Your task to perform on an android device: Open accessibility settings Image 0: 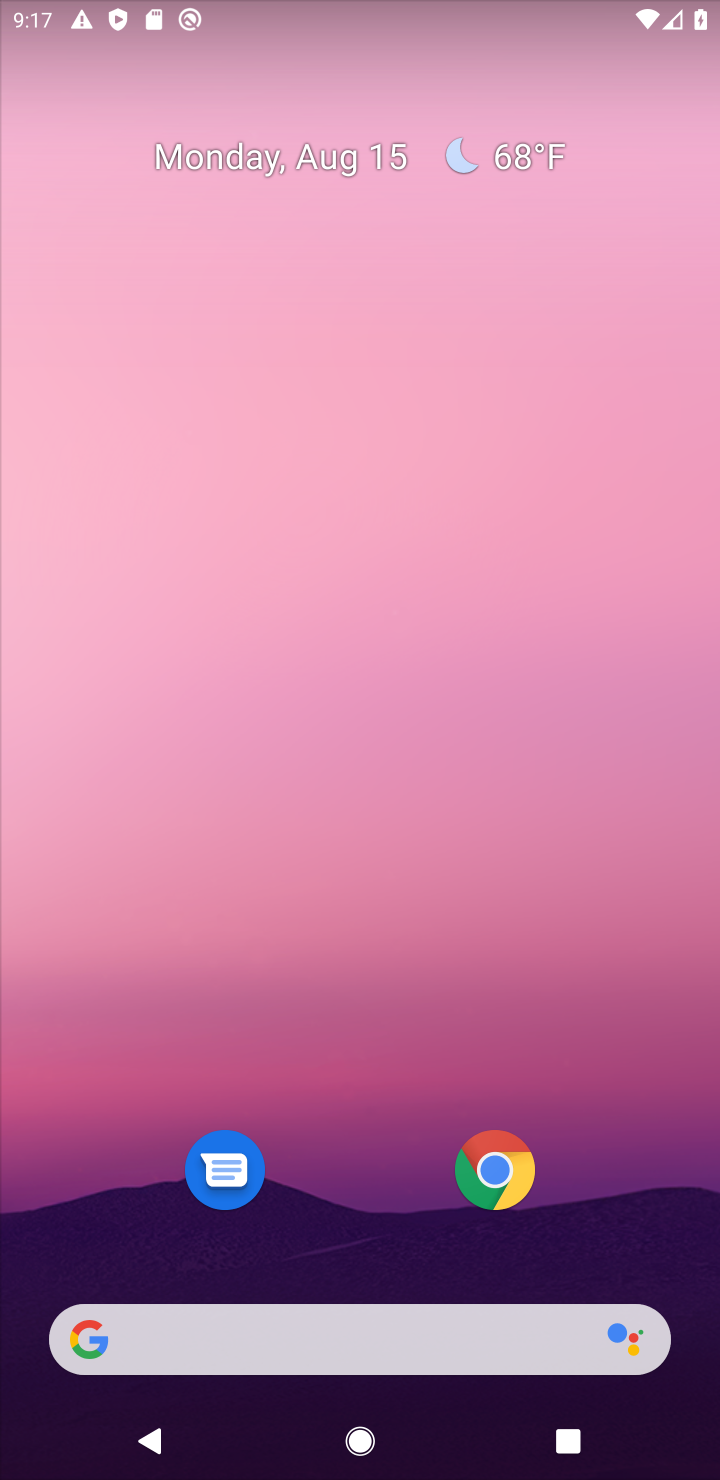
Step 0: drag from (204, 1263) to (217, 88)
Your task to perform on an android device: Open accessibility settings Image 1: 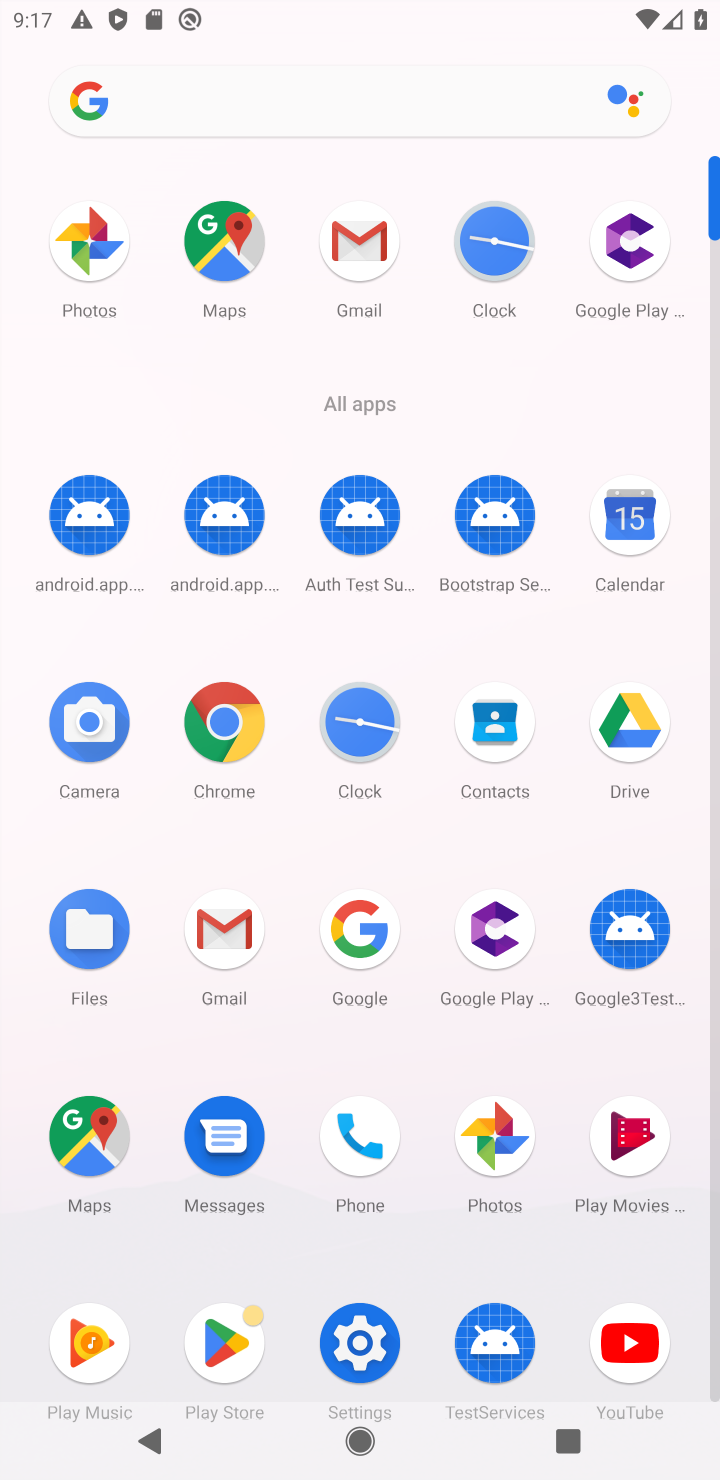
Step 1: click (372, 1352)
Your task to perform on an android device: Open accessibility settings Image 2: 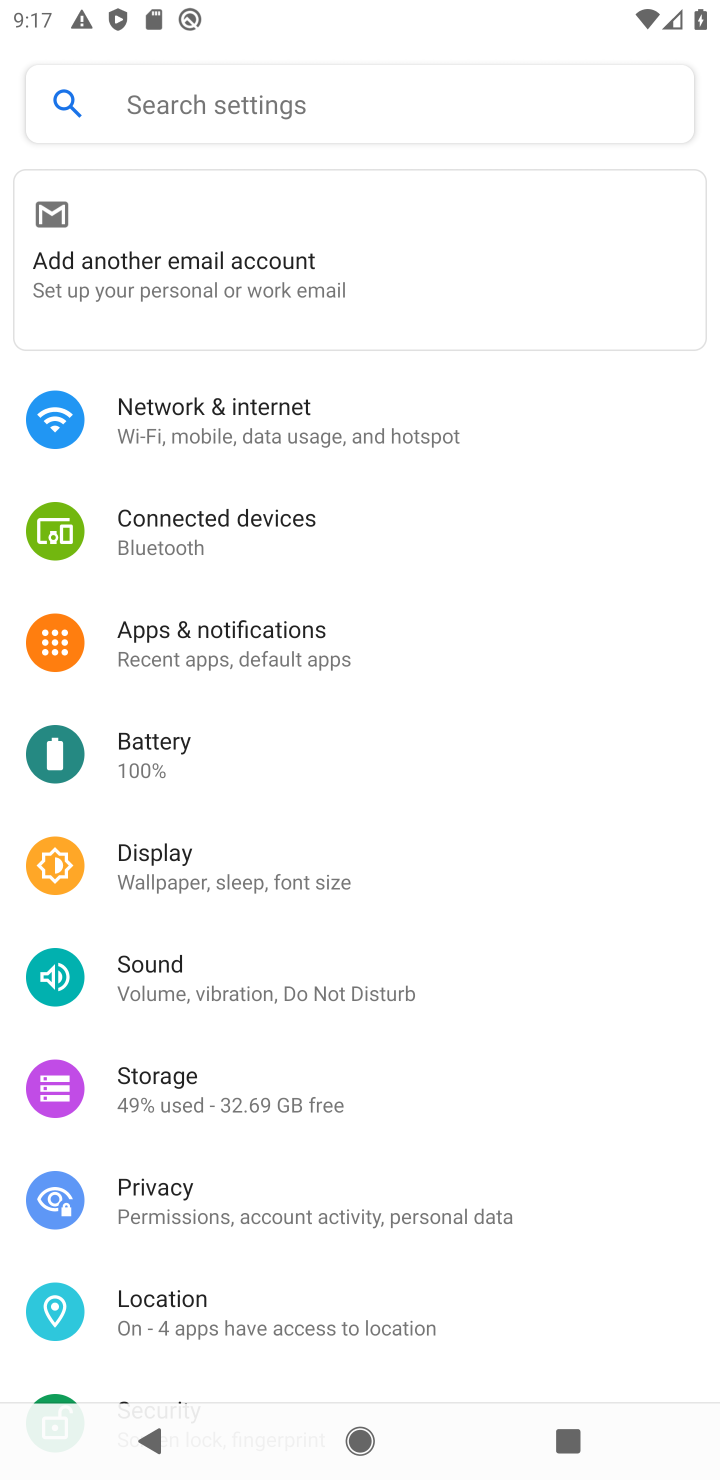
Step 2: drag from (105, 1006) to (2, 376)
Your task to perform on an android device: Open accessibility settings Image 3: 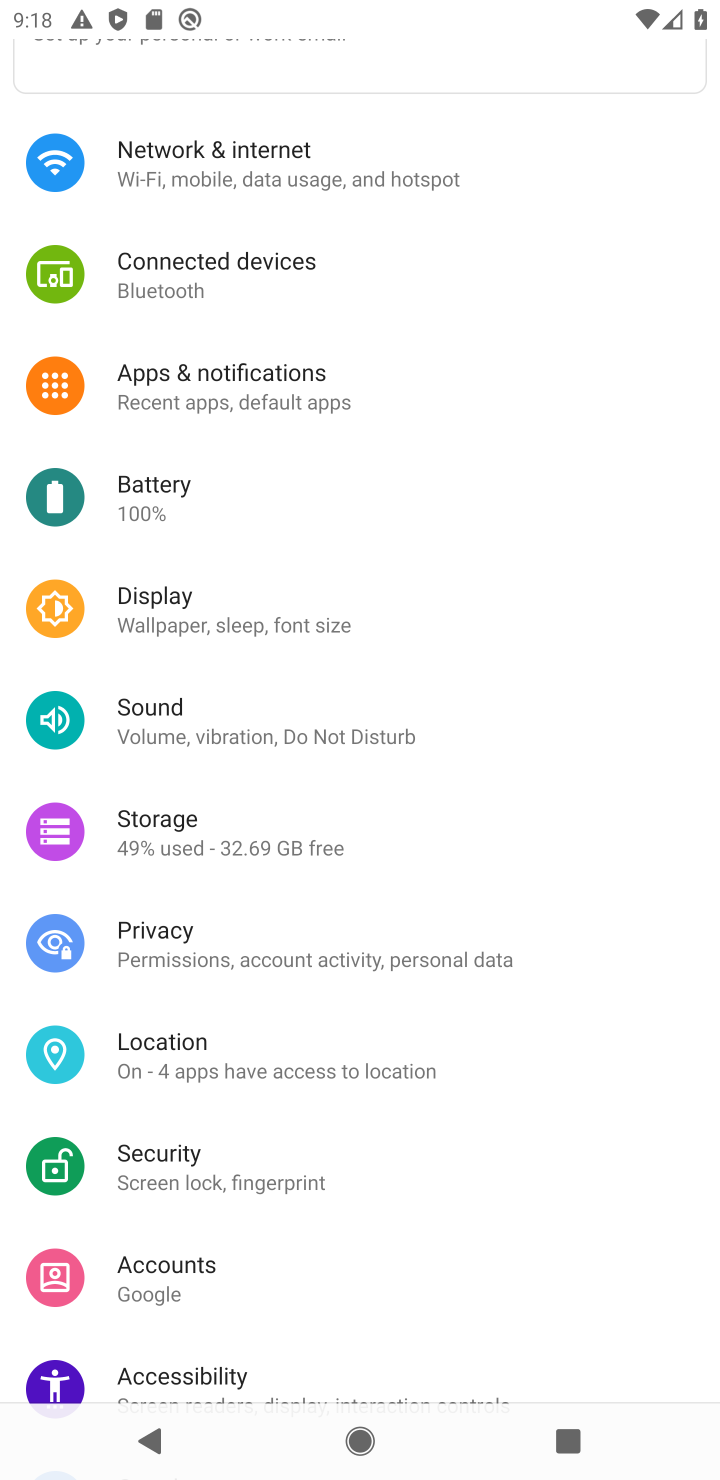
Step 3: drag from (251, 1208) to (357, 351)
Your task to perform on an android device: Open accessibility settings Image 4: 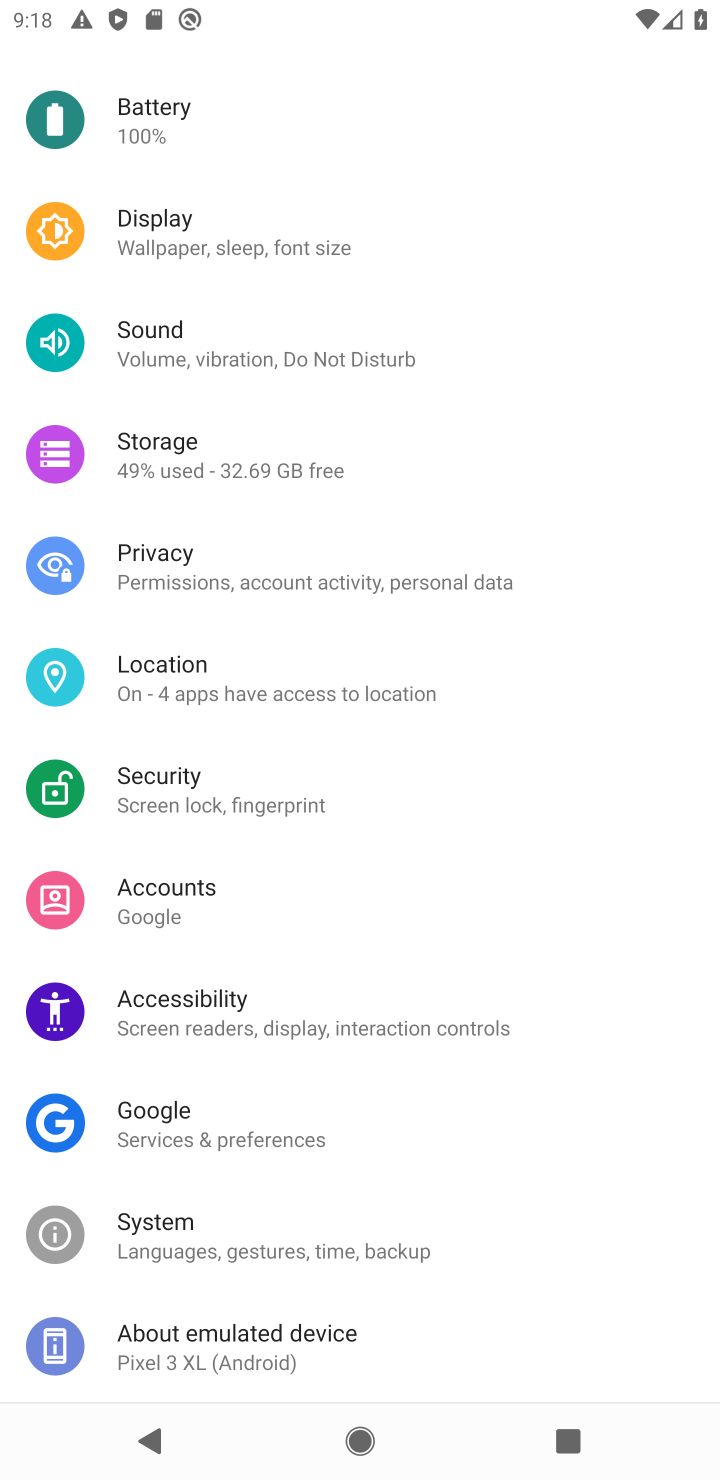
Step 4: click (246, 1030)
Your task to perform on an android device: Open accessibility settings Image 5: 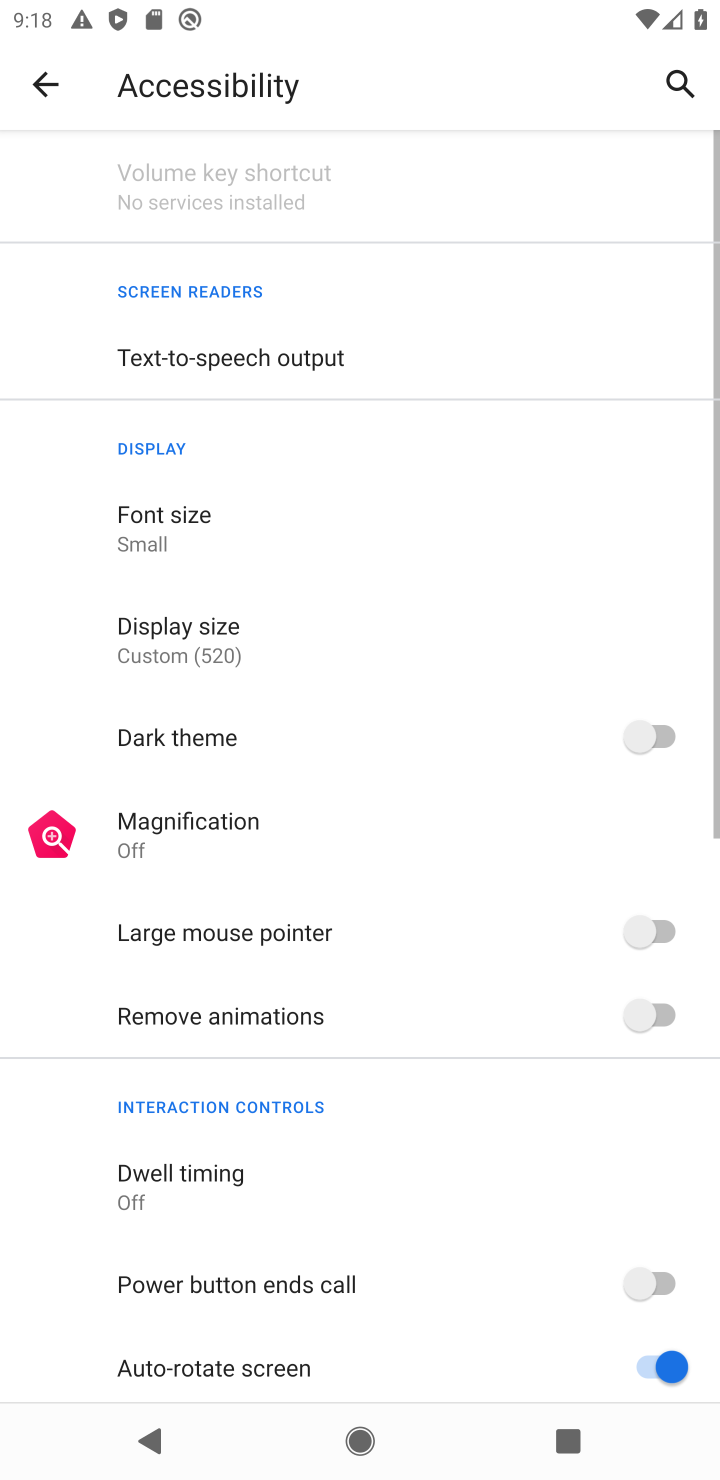
Step 5: task complete